Your task to perform on an android device: Open Reddit.com Image 0: 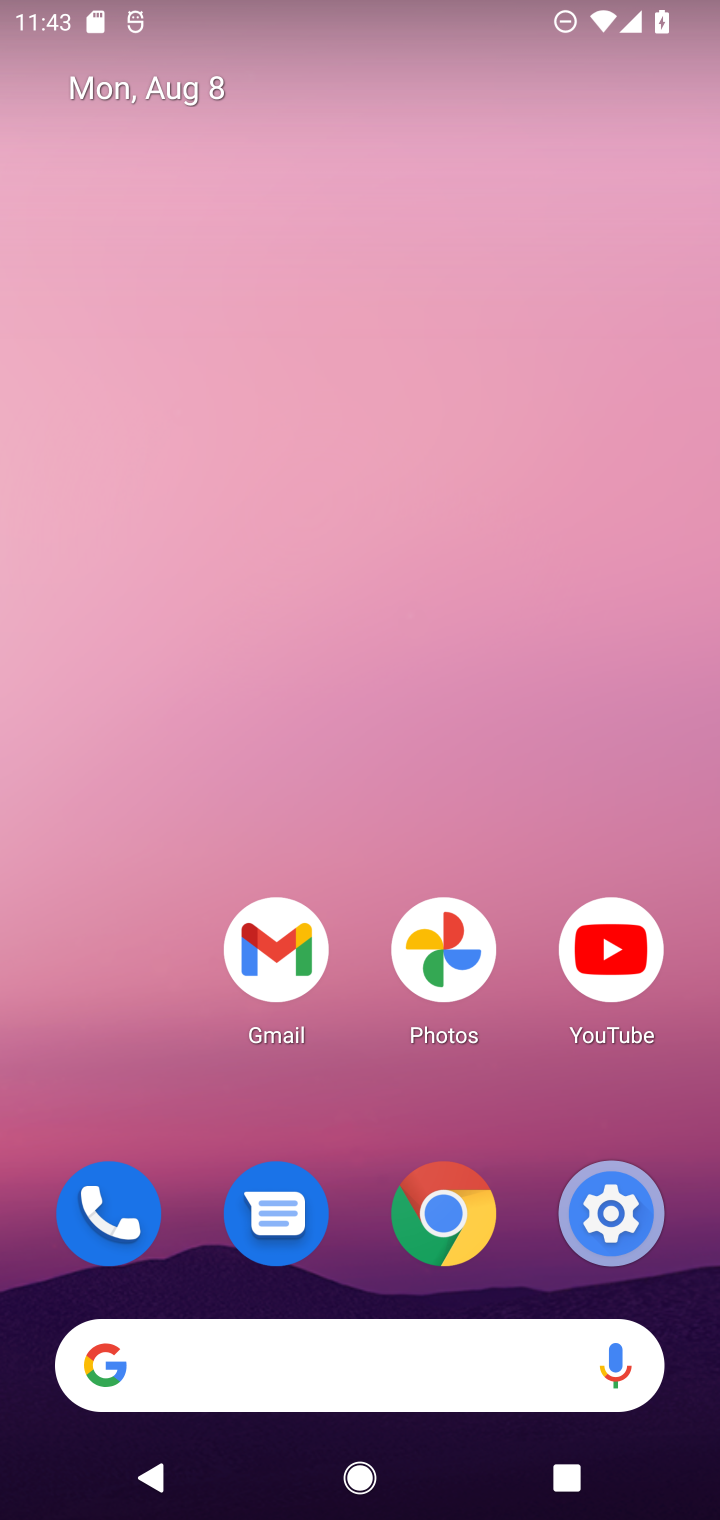
Step 0: press home button
Your task to perform on an android device: Open Reddit.com Image 1: 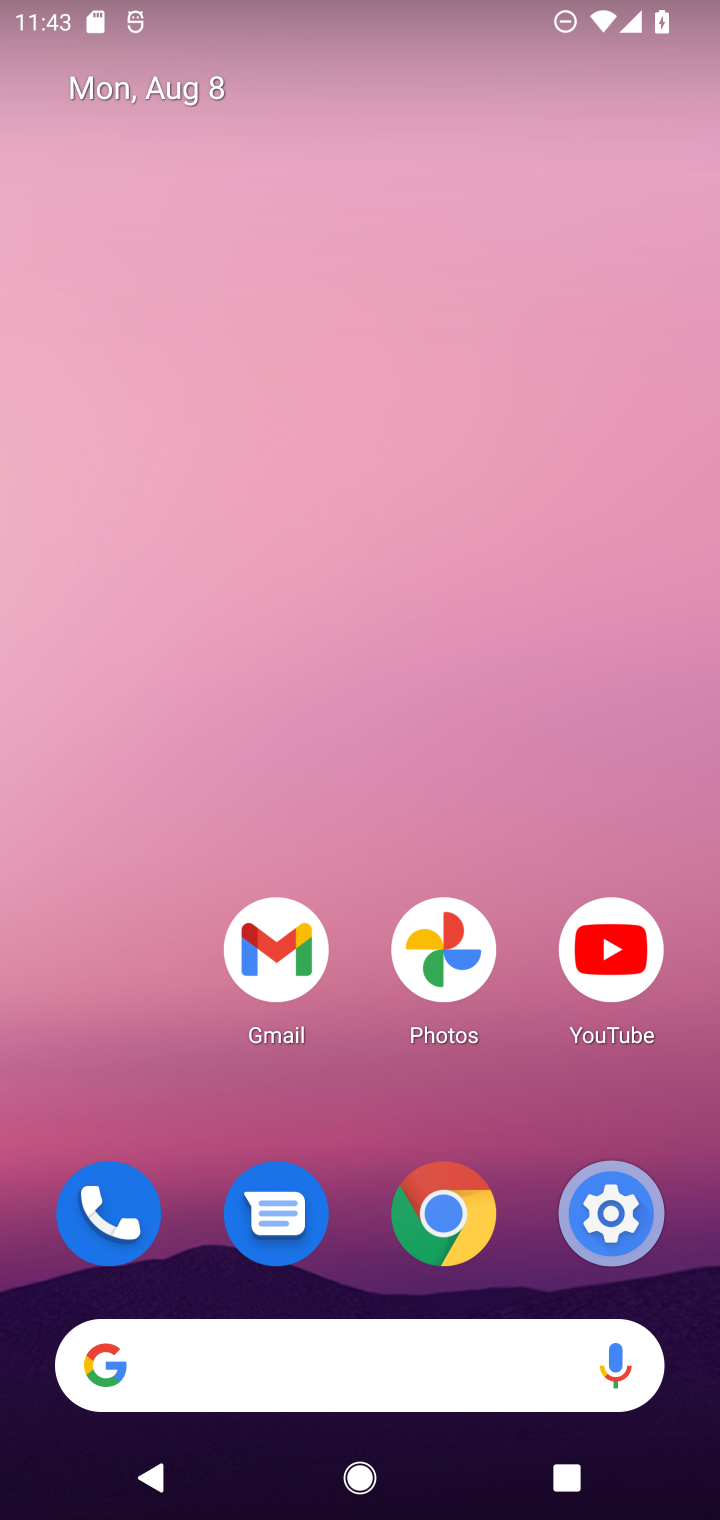
Step 1: click (441, 1203)
Your task to perform on an android device: Open Reddit.com Image 2: 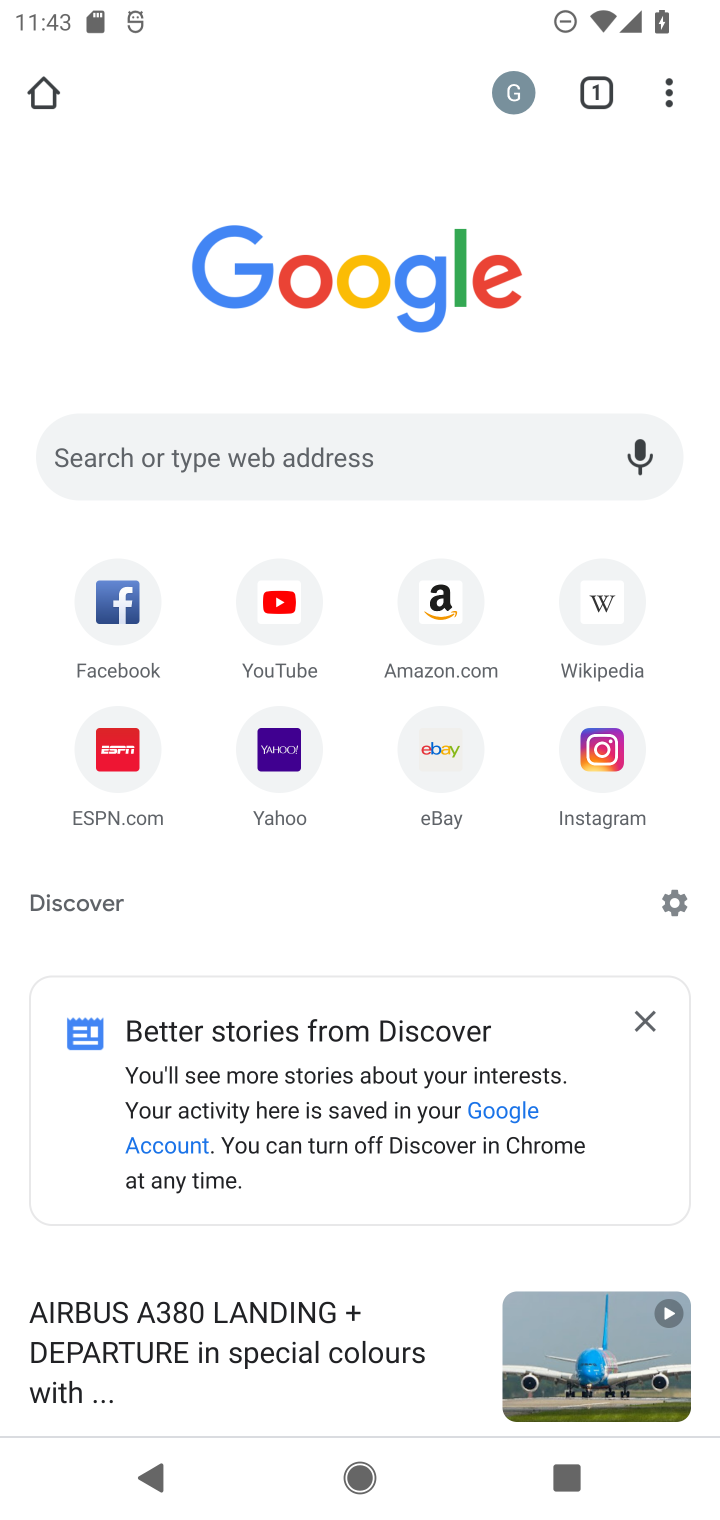
Step 2: click (316, 451)
Your task to perform on an android device: Open Reddit.com Image 3: 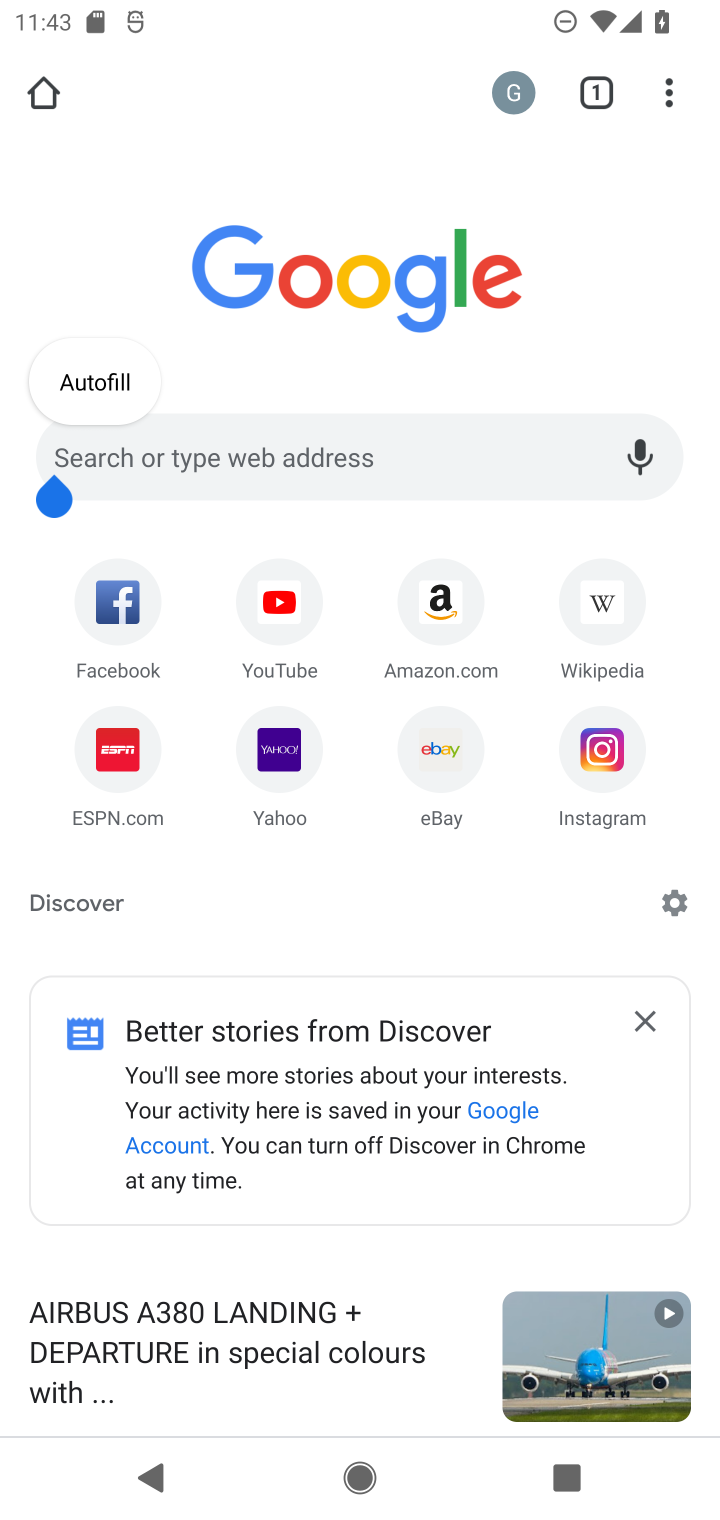
Step 3: click (178, 435)
Your task to perform on an android device: Open Reddit.com Image 4: 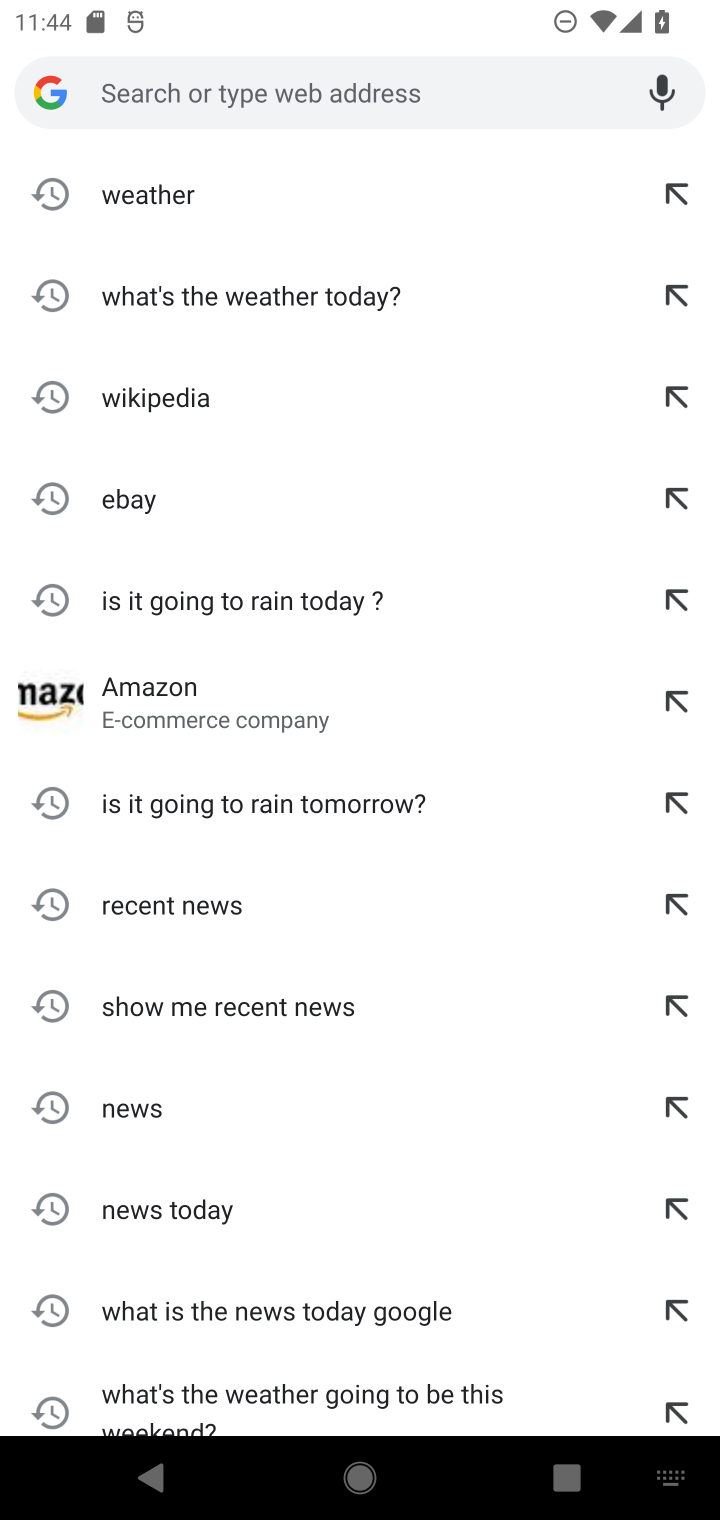
Step 4: type "reddit.com"
Your task to perform on an android device: Open Reddit.com Image 5: 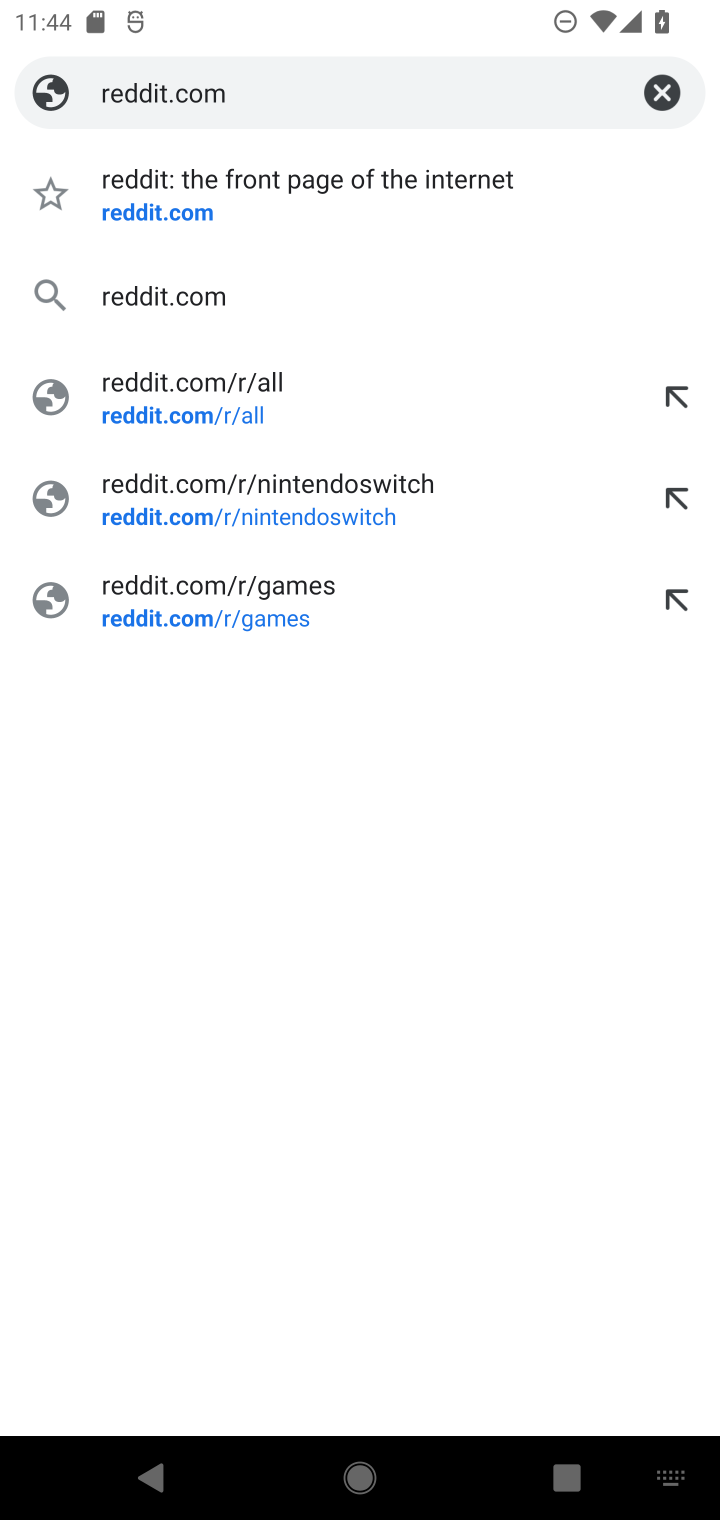
Step 5: click (254, 192)
Your task to perform on an android device: Open Reddit.com Image 6: 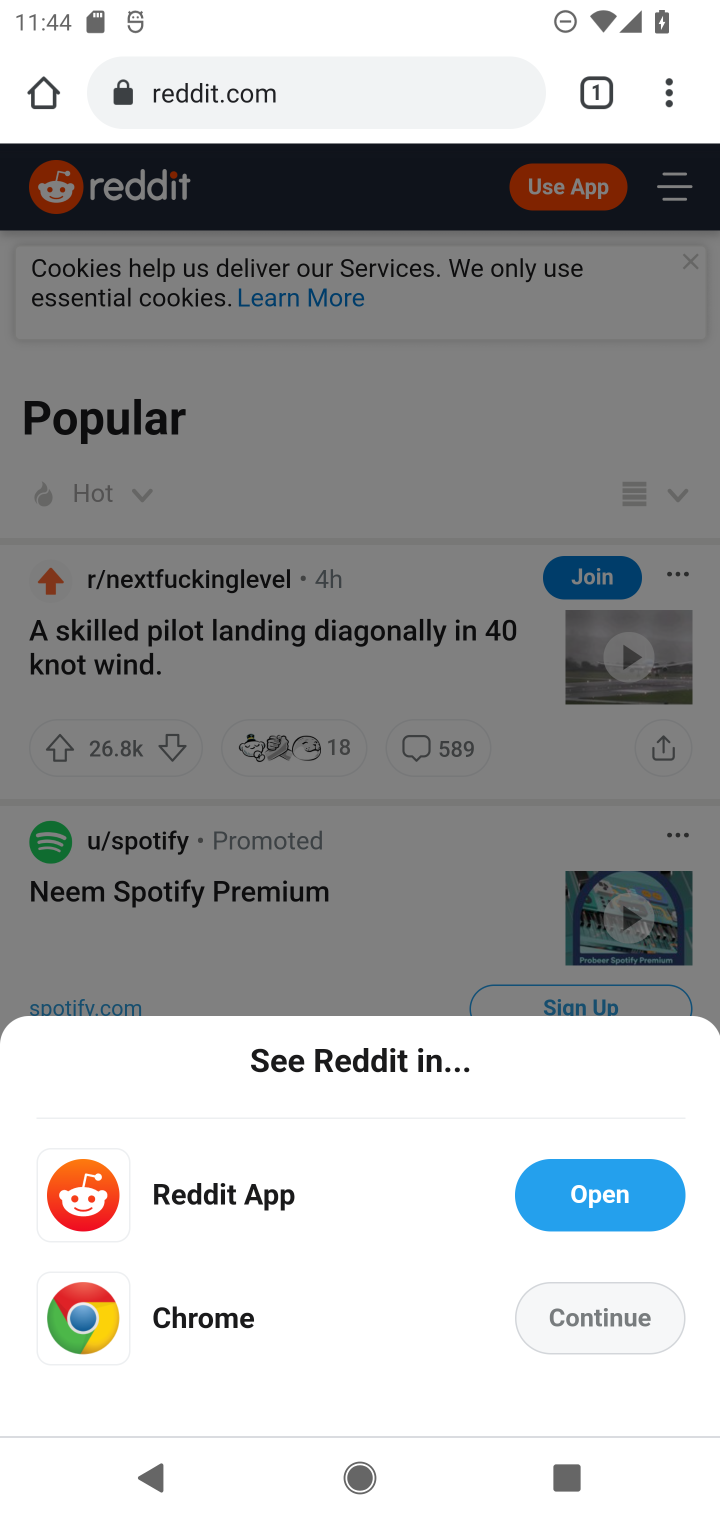
Step 6: click (593, 1309)
Your task to perform on an android device: Open Reddit.com Image 7: 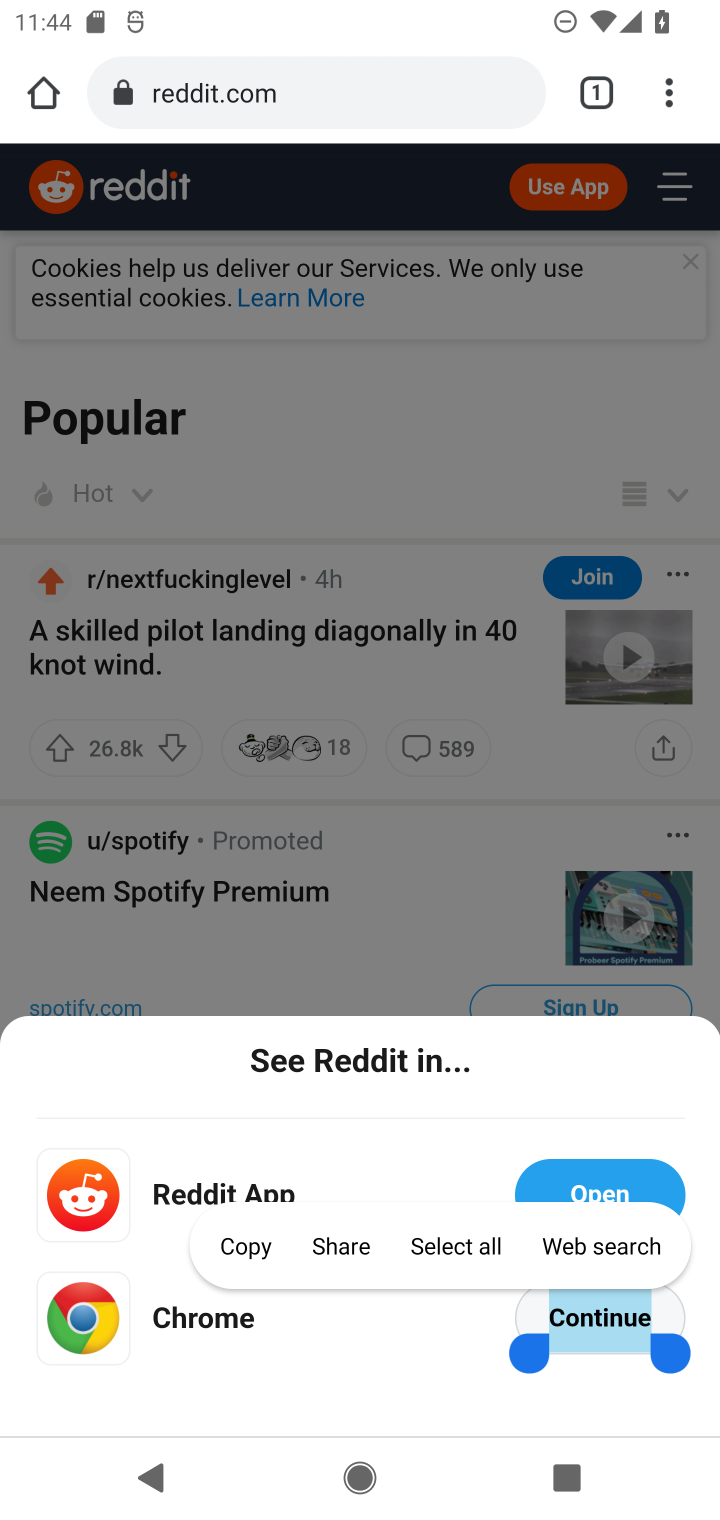
Step 7: click (569, 1319)
Your task to perform on an android device: Open Reddit.com Image 8: 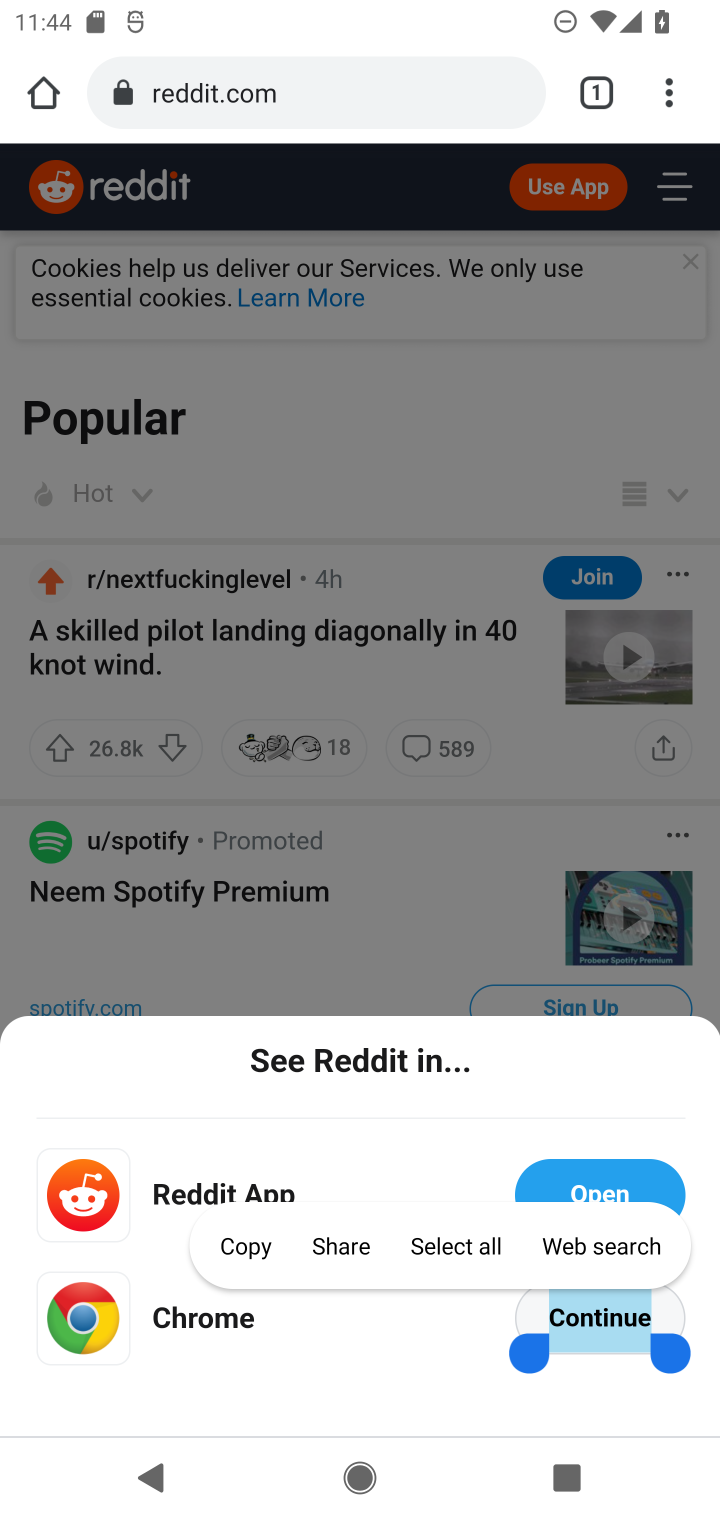
Step 8: click (517, 1315)
Your task to perform on an android device: Open Reddit.com Image 9: 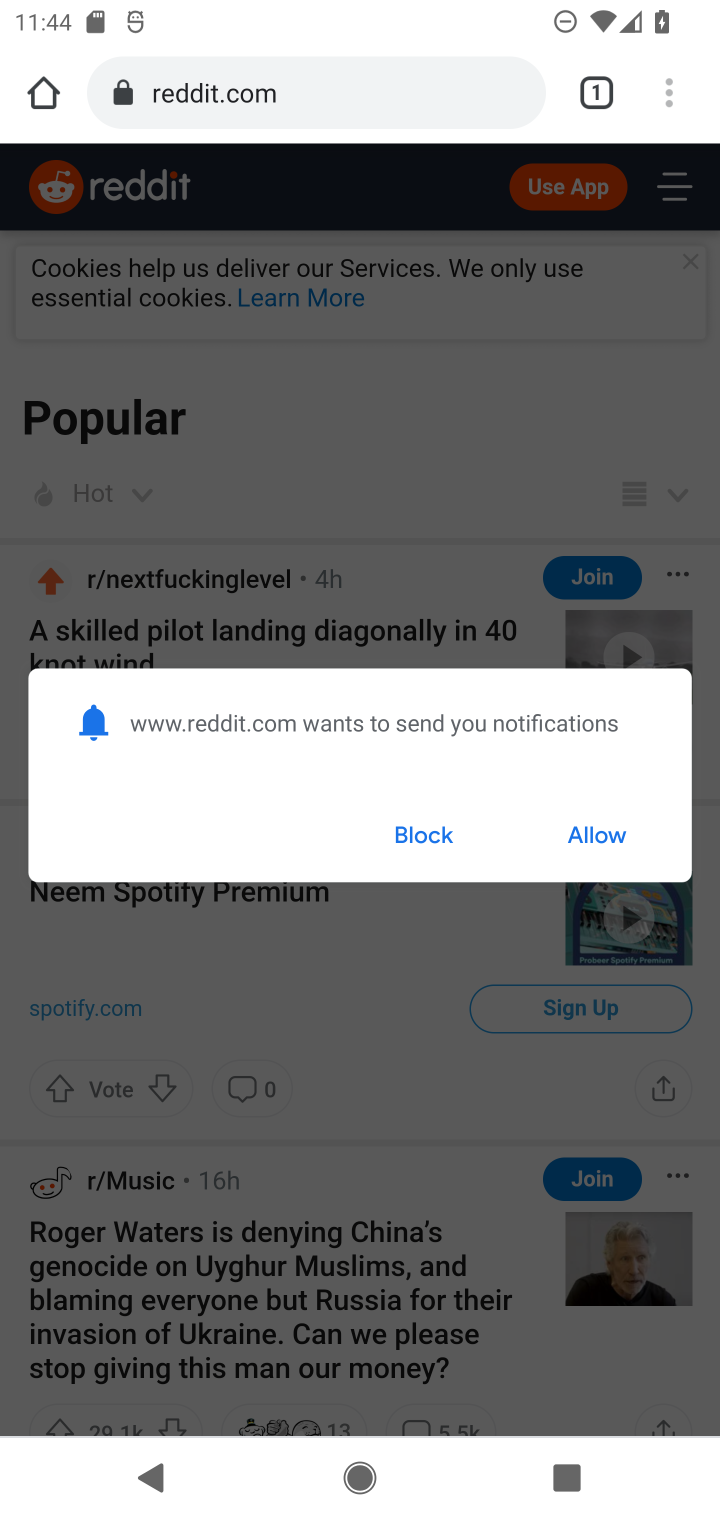
Step 9: click (594, 825)
Your task to perform on an android device: Open Reddit.com Image 10: 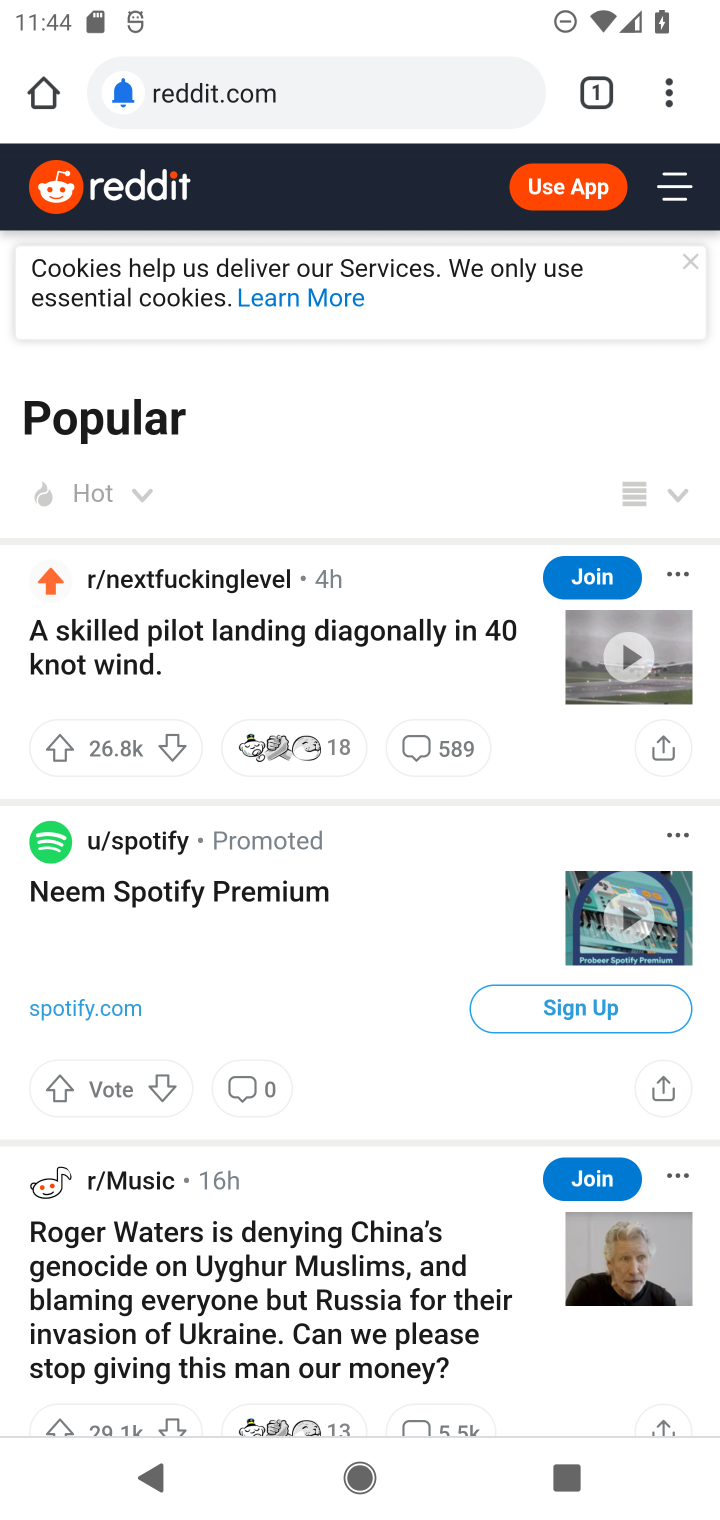
Step 10: task complete